Your task to perform on an android device: Open Chrome and go to settings Image 0: 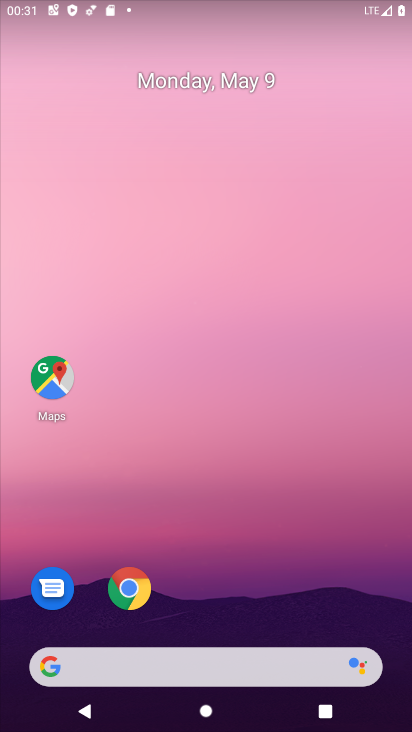
Step 0: click (129, 589)
Your task to perform on an android device: Open Chrome and go to settings Image 1: 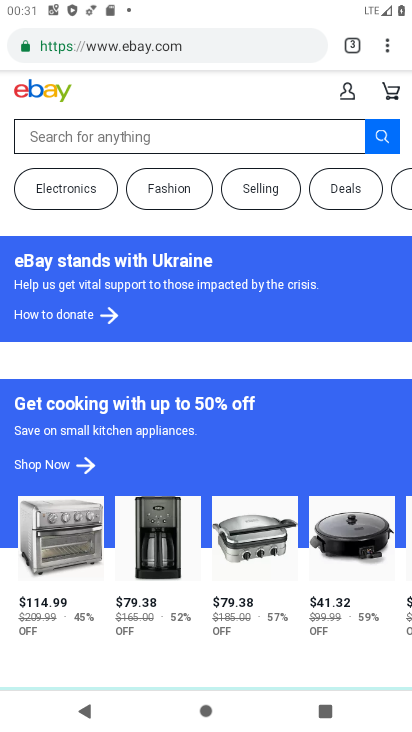
Step 1: click (383, 40)
Your task to perform on an android device: Open Chrome and go to settings Image 2: 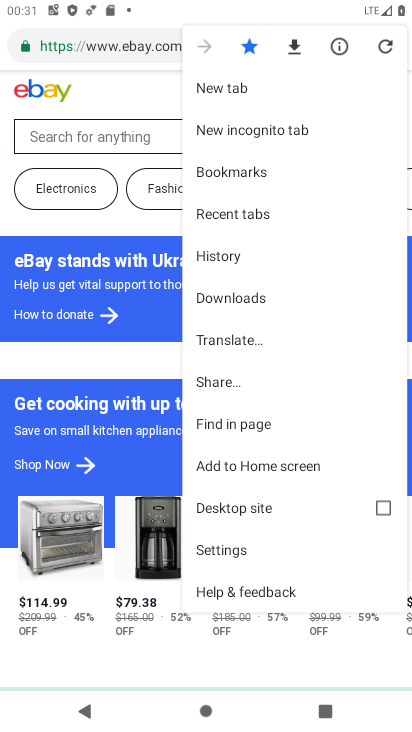
Step 2: click (230, 548)
Your task to perform on an android device: Open Chrome and go to settings Image 3: 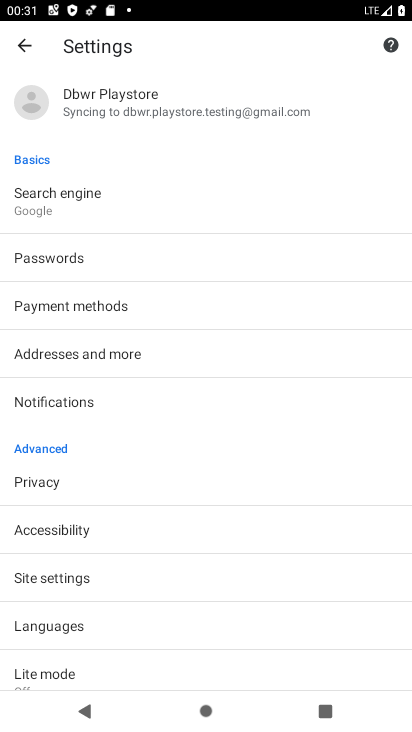
Step 3: task complete